Your task to perform on an android device: open app "LiveIn - Share Your Moment" (install if not already installed) and go to login screen Image 0: 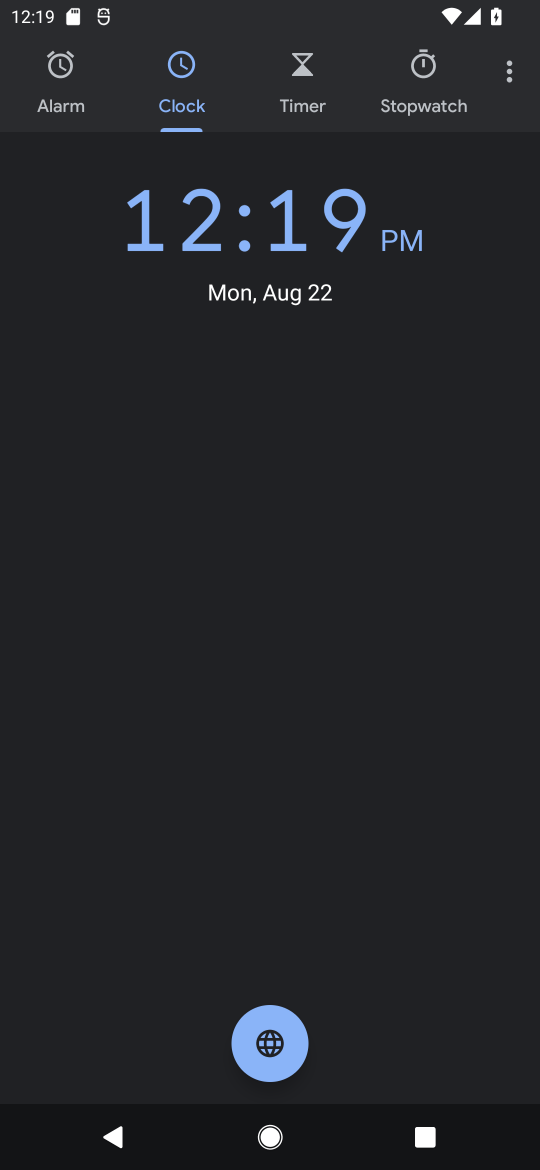
Step 0: press back button
Your task to perform on an android device: open app "LiveIn - Share Your Moment" (install if not already installed) and go to login screen Image 1: 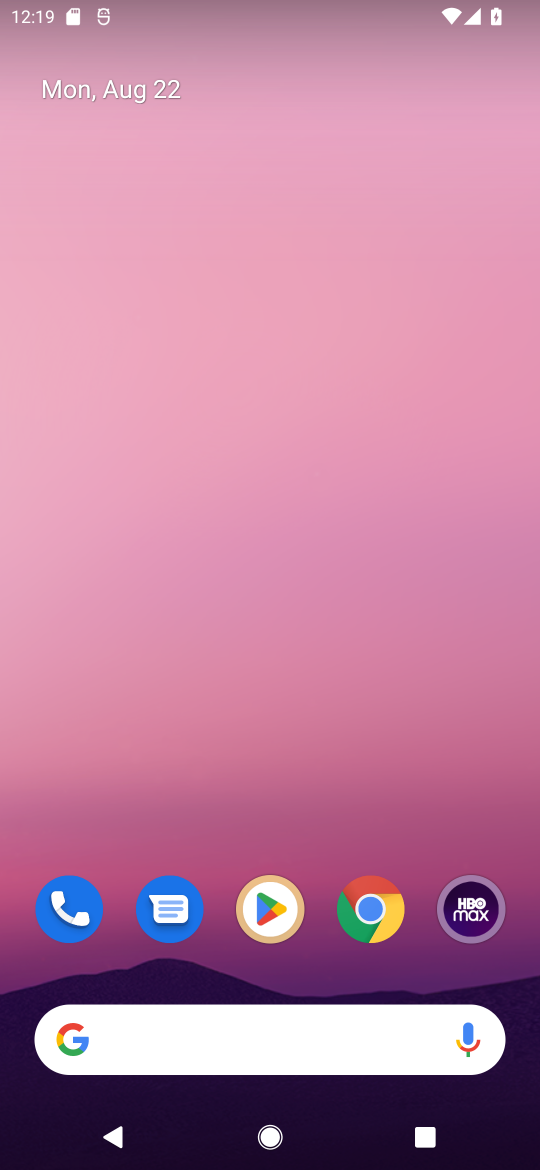
Step 1: click (279, 900)
Your task to perform on an android device: open app "LiveIn - Share Your Moment" (install if not already installed) and go to login screen Image 2: 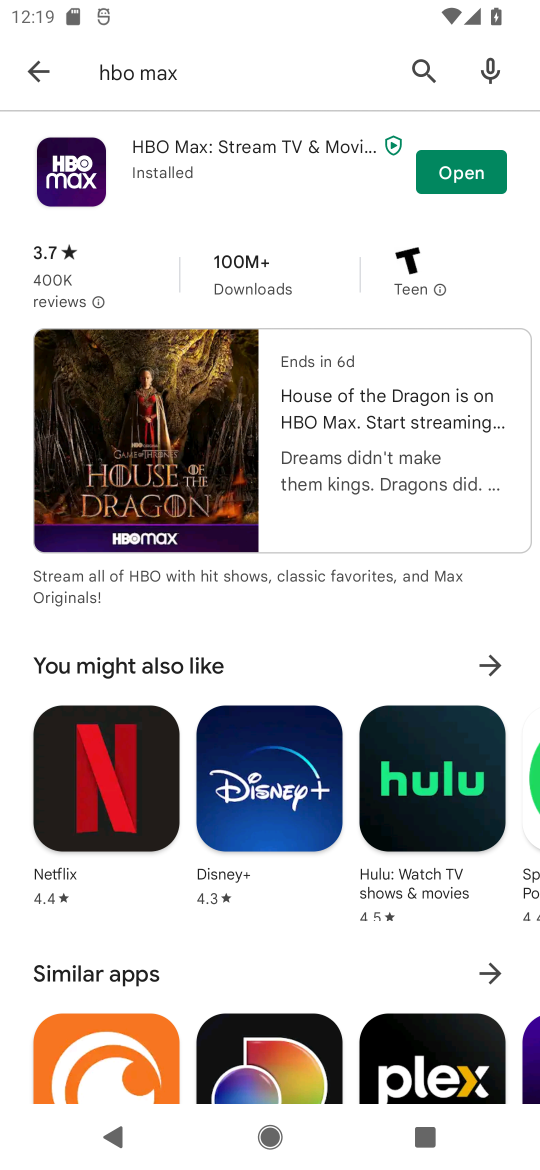
Step 2: click (420, 58)
Your task to perform on an android device: open app "LiveIn - Share Your Moment" (install if not already installed) and go to login screen Image 3: 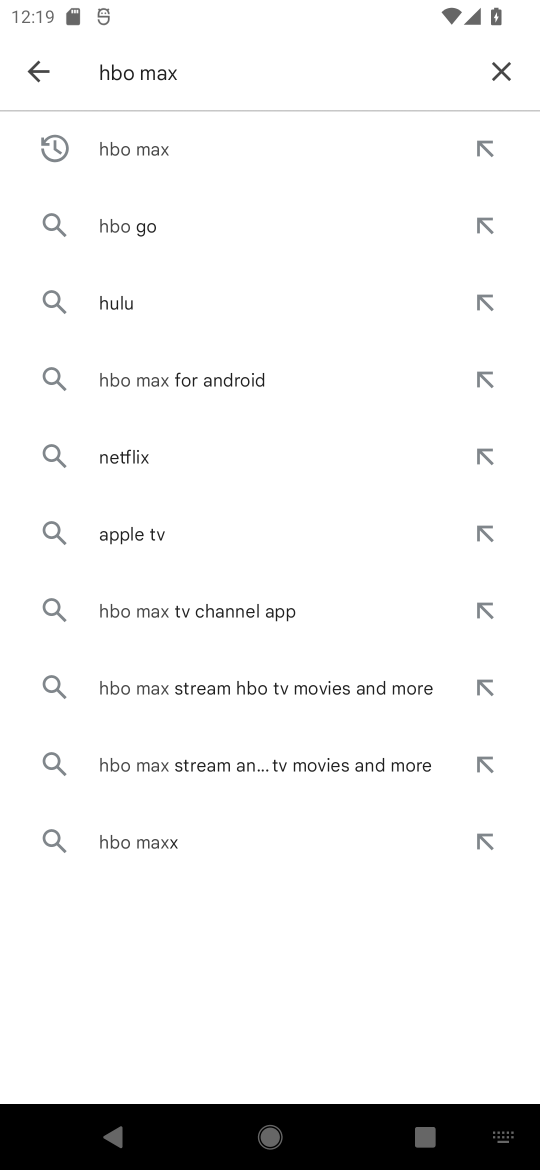
Step 3: click (507, 63)
Your task to perform on an android device: open app "LiveIn - Share Your Moment" (install if not already installed) and go to login screen Image 4: 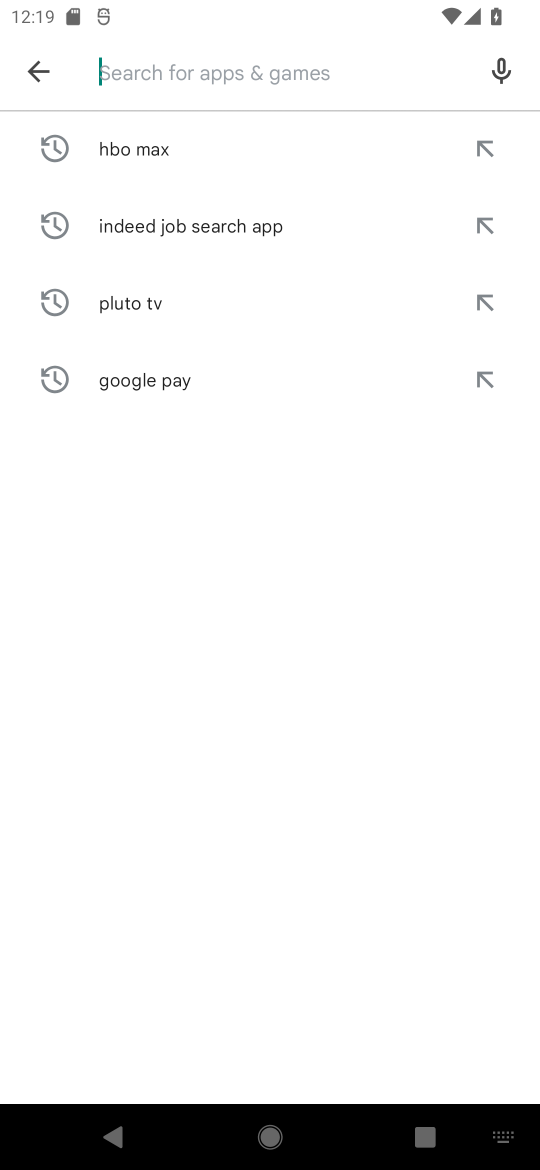
Step 4: click (187, 82)
Your task to perform on an android device: open app "LiveIn - Share Your Moment" (install if not already installed) and go to login screen Image 5: 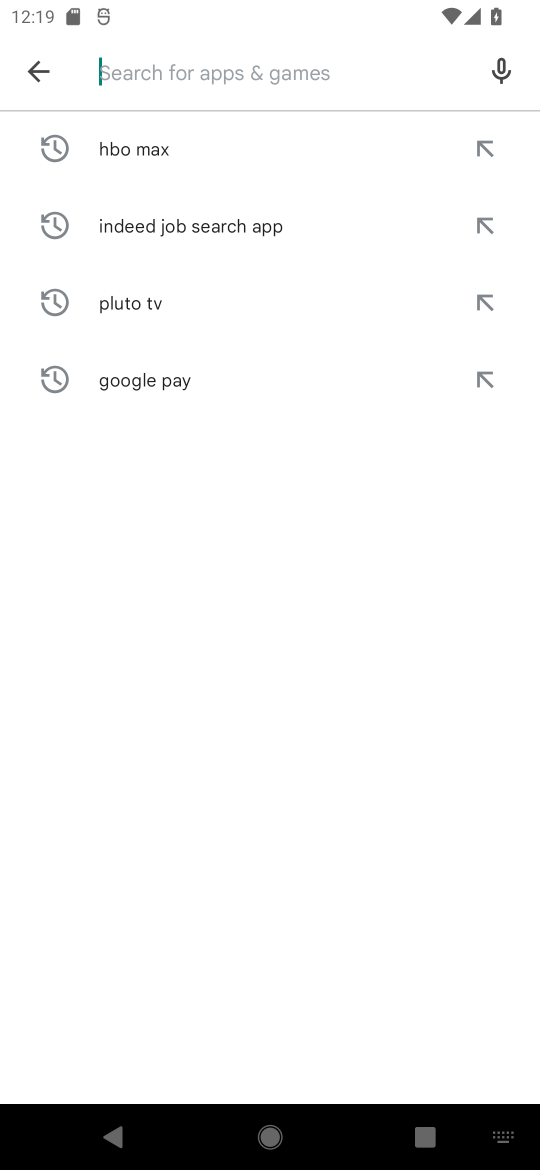
Step 5: type "LiveIn"
Your task to perform on an android device: open app "LiveIn - Share Your Moment" (install if not already installed) and go to login screen Image 6: 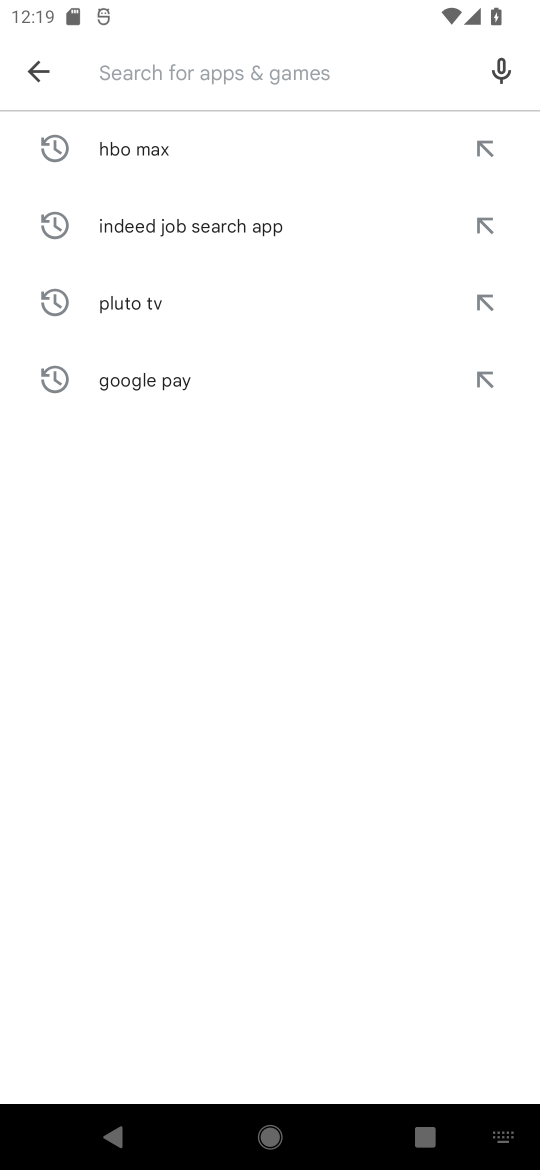
Step 6: click (348, 864)
Your task to perform on an android device: open app "LiveIn - Share Your Moment" (install if not already installed) and go to login screen Image 7: 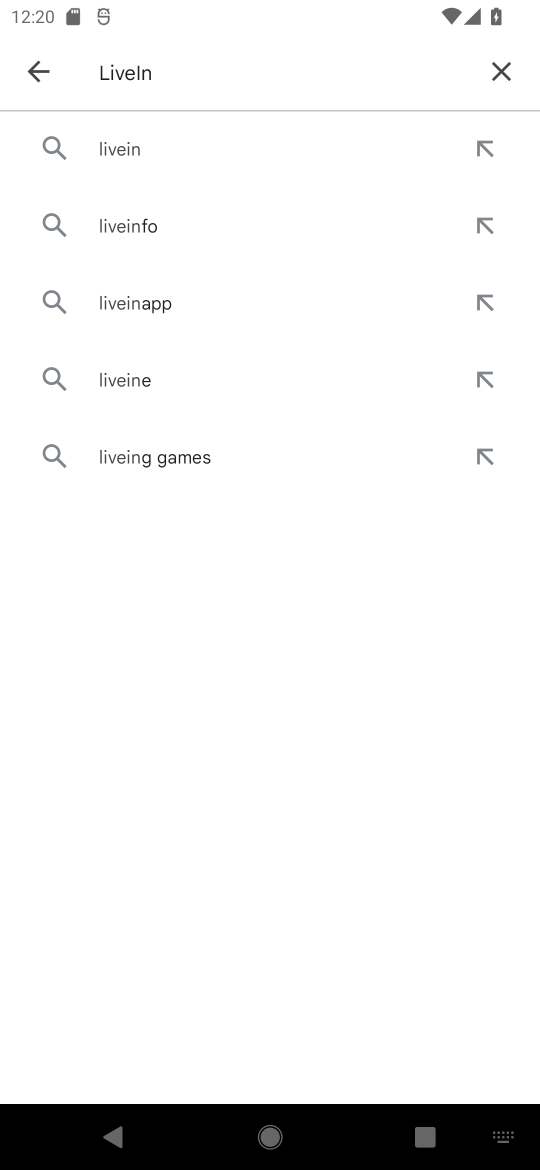
Step 7: click (177, 139)
Your task to perform on an android device: open app "LiveIn - Share Your Moment" (install if not already installed) and go to login screen Image 8: 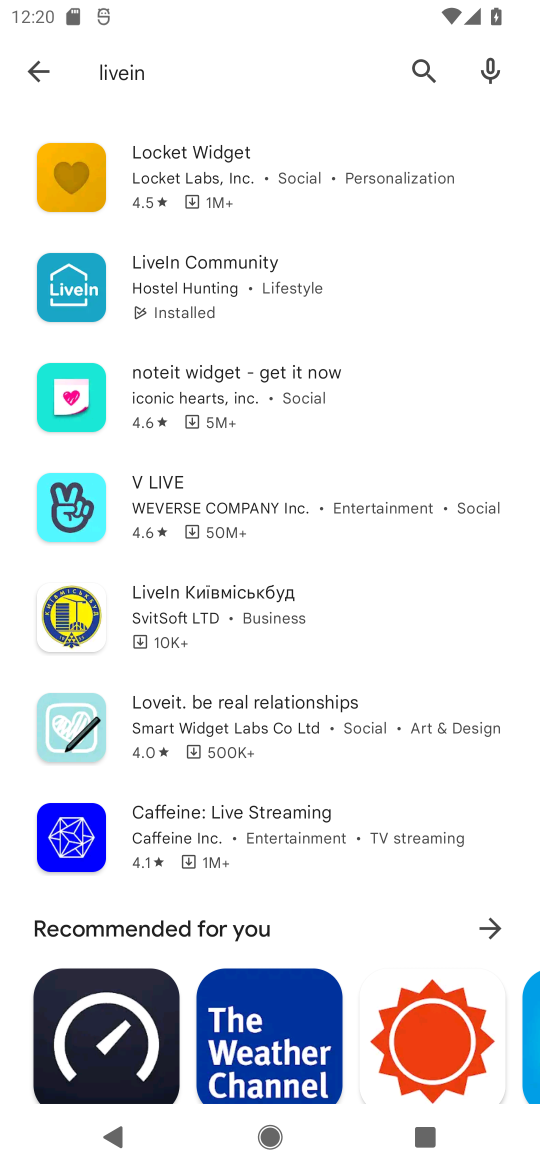
Step 8: click (236, 292)
Your task to perform on an android device: open app "LiveIn - Share Your Moment" (install if not already installed) and go to login screen Image 9: 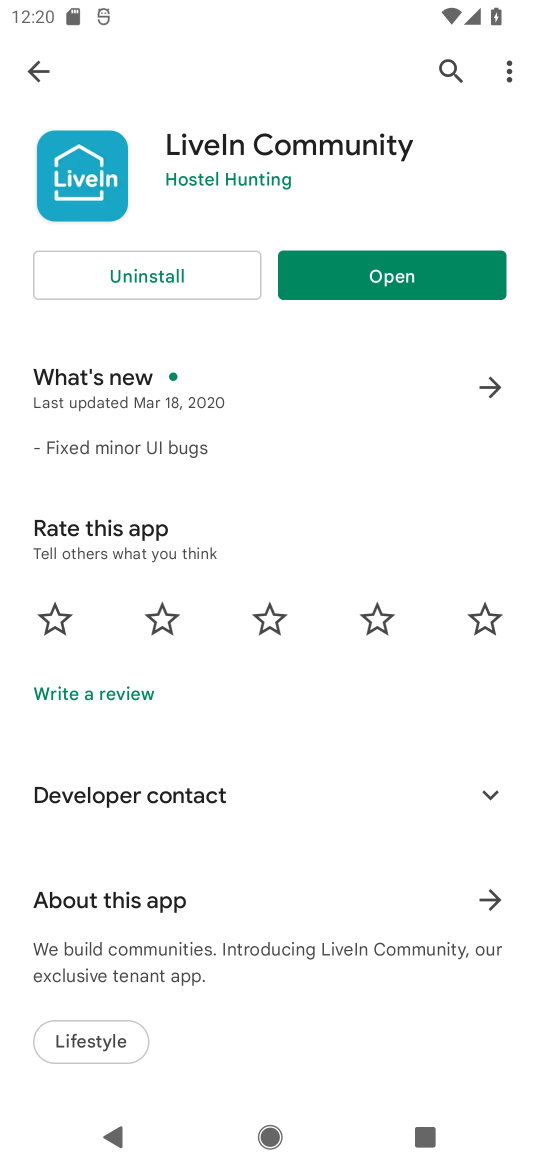
Step 9: click (410, 262)
Your task to perform on an android device: open app "LiveIn - Share Your Moment" (install if not already installed) and go to login screen Image 10: 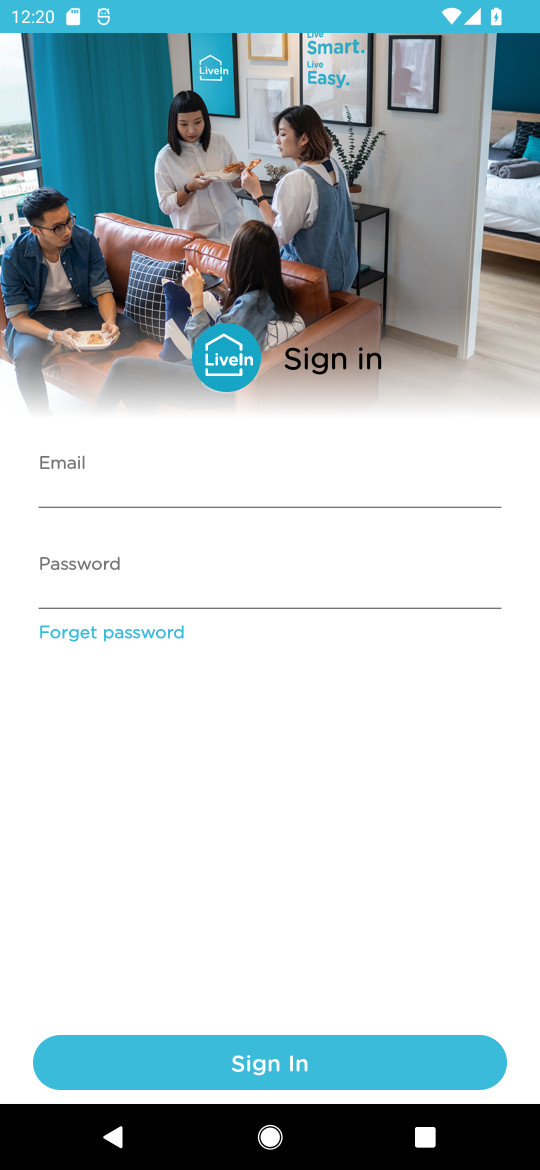
Step 10: task complete